Your task to perform on an android device: turn on data saver in the chrome app Image 0: 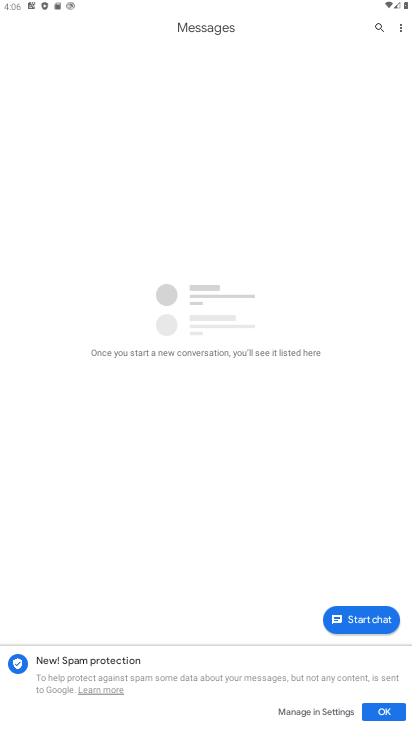
Step 0: press home button
Your task to perform on an android device: turn on data saver in the chrome app Image 1: 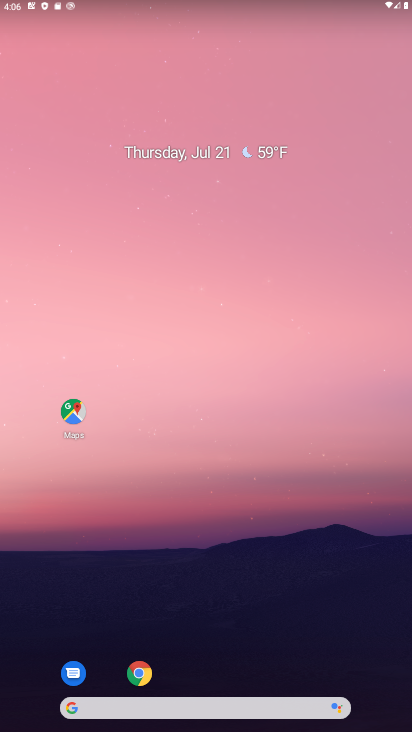
Step 1: click (137, 673)
Your task to perform on an android device: turn on data saver in the chrome app Image 2: 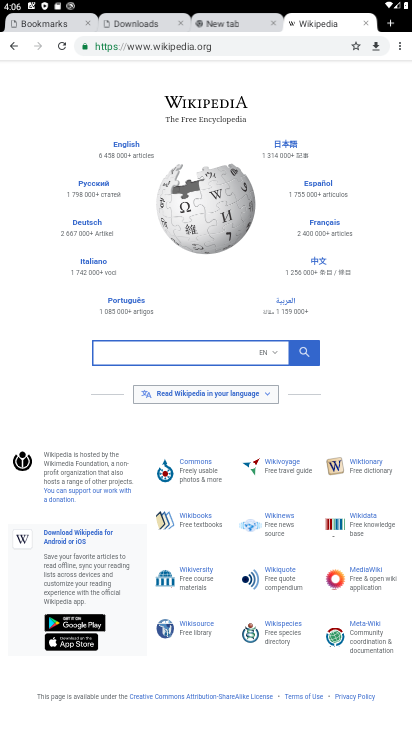
Step 2: click (398, 50)
Your task to perform on an android device: turn on data saver in the chrome app Image 3: 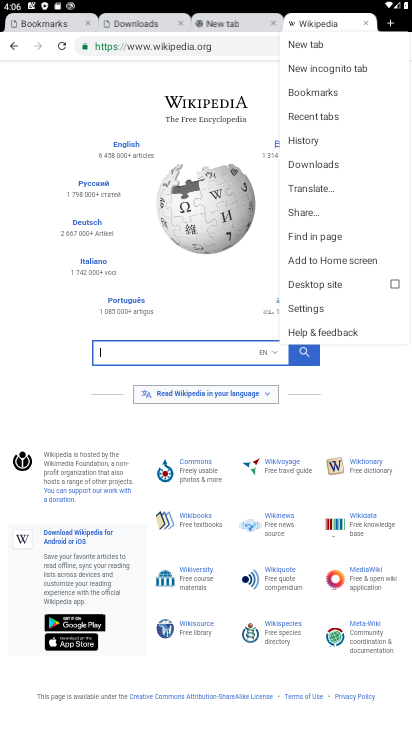
Step 3: click (311, 305)
Your task to perform on an android device: turn on data saver in the chrome app Image 4: 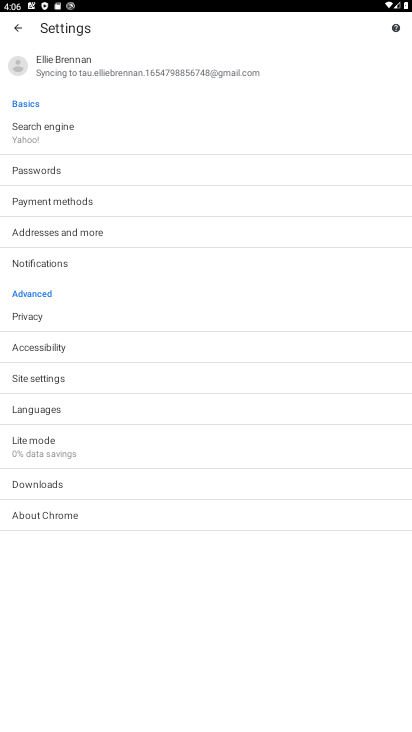
Step 4: click (46, 445)
Your task to perform on an android device: turn on data saver in the chrome app Image 5: 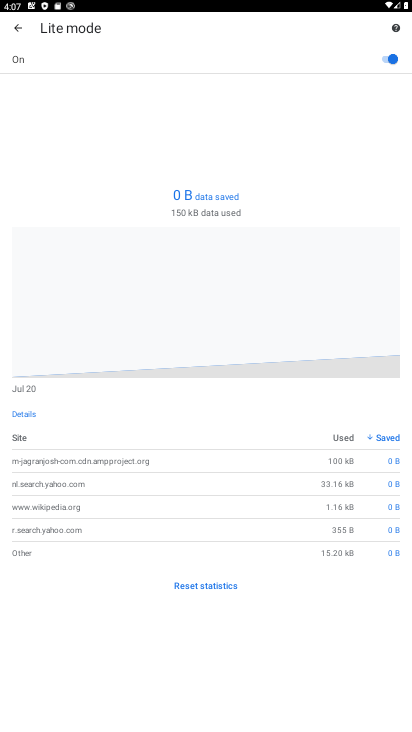
Step 5: task complete